Your task to perform on an android device: refresh tabs in the chrome app Image 0: 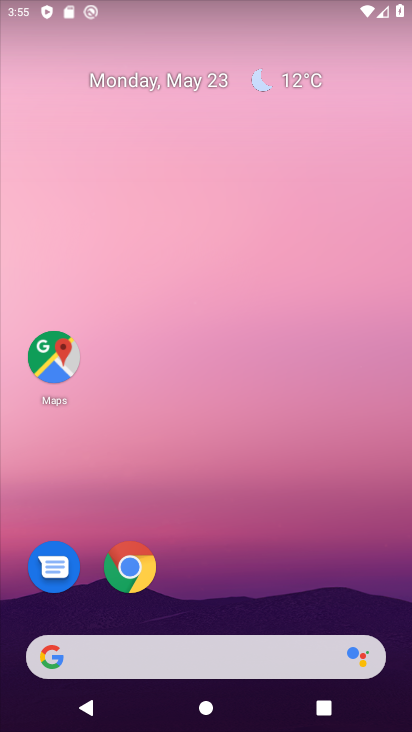
Step 0: click (131, 572)
Your task to perform on an android device: refresh tabs in the chrome app Image 1: 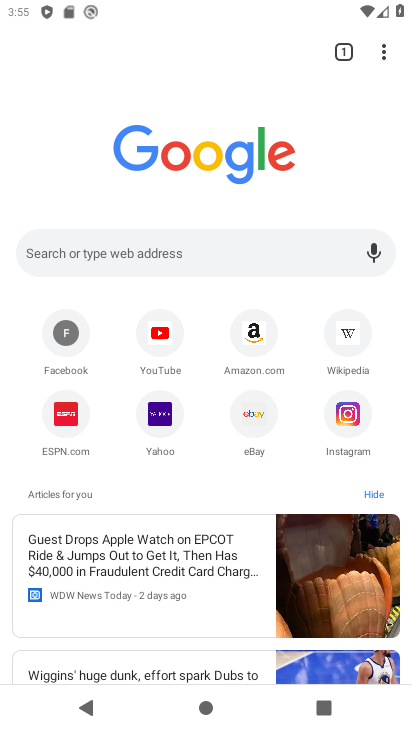
Step 1: click (384, 47)
Your task to perform on an android device: refresh tabs in the chrome app Image 2: 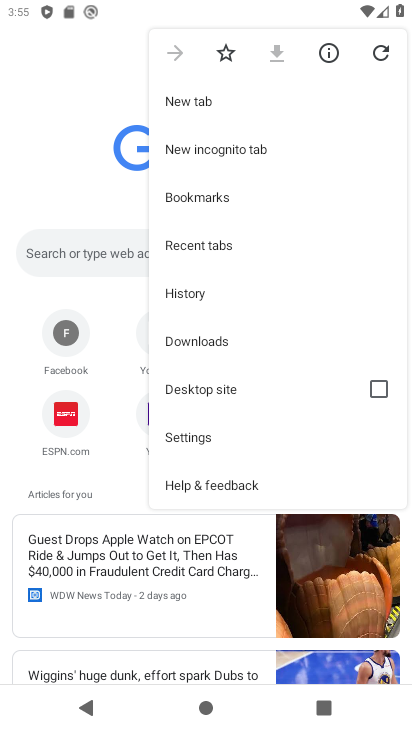
Step 2: click (384, 55)
Your task to perform on an android device: refresh tabs in the chrome app Image 3: 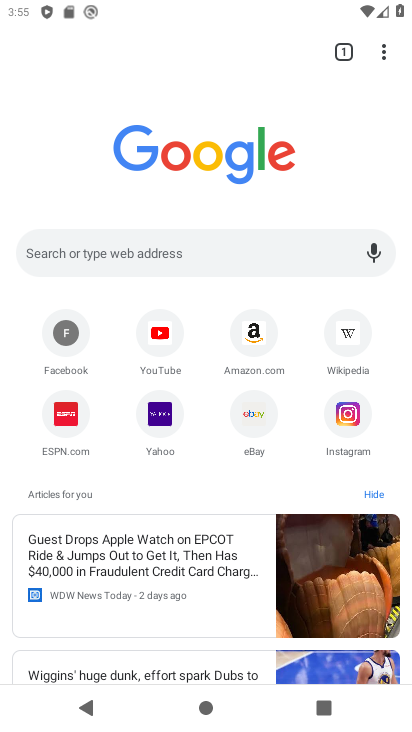
Step 3: task complete